Your task to perform on an android device: open a bookmark in the chrome app Image 0: 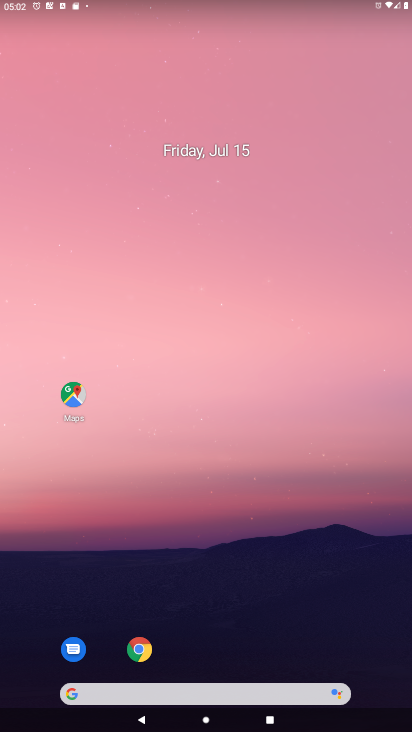
Step 0: click (137, 649)
Your task to perform on an android device: open a bookmark in the chrome app Image 1: 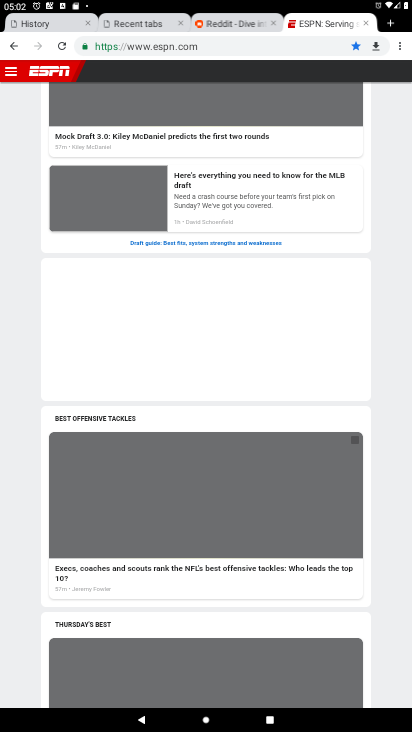
Step 1: click (398, 48)
Your task to perform on an android device: open a bookmark in the chrome app Image 2: 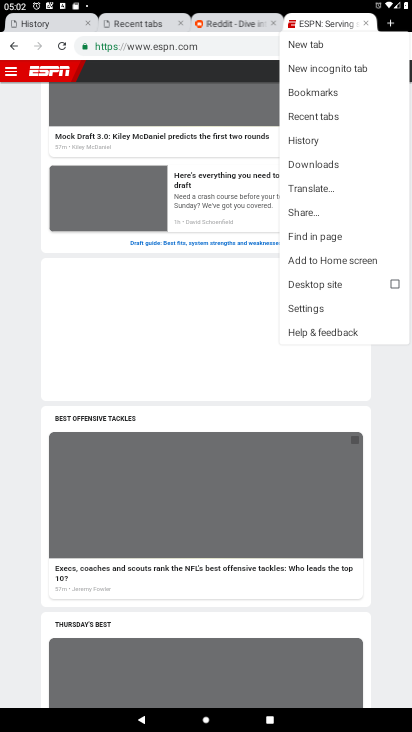
Step 2: click (306, 92)
Your task to perform on an android device: open a bookmark in the chrome app Image 3: 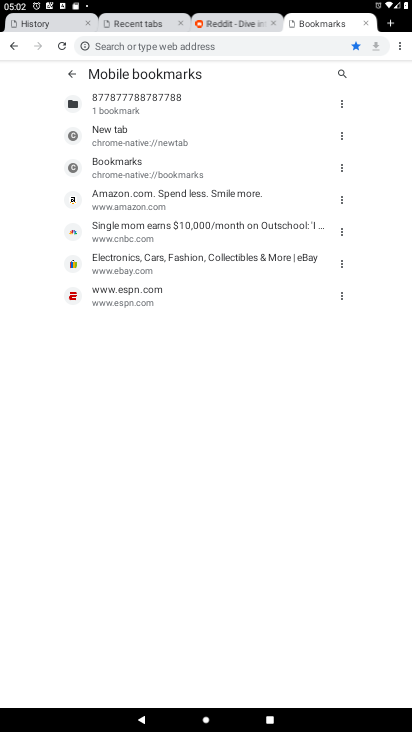
Step 3: task complete